Your task to perform on an android device: search for starred emails in the gmail app Image 0: 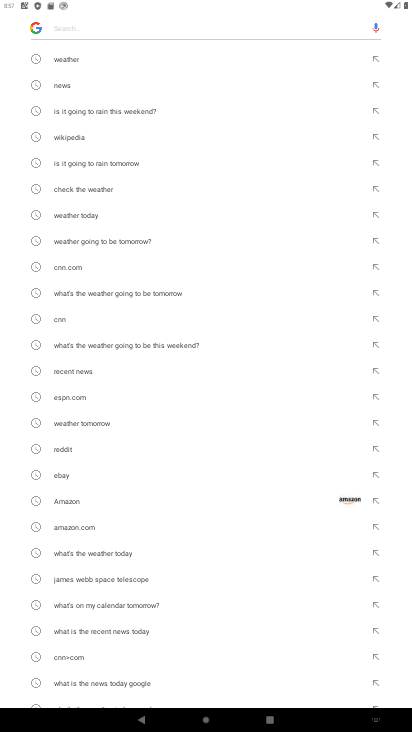
Step 0: task complete